Your task to perform on an android device: Go to internet settings Image 0: 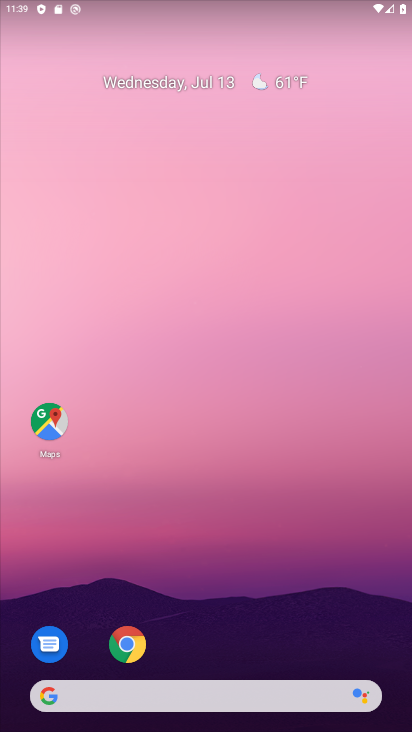
Step 0: drag from (258, 609) to (291, 109)
Your task to perform on an android device: Go to internet settings Image 1: 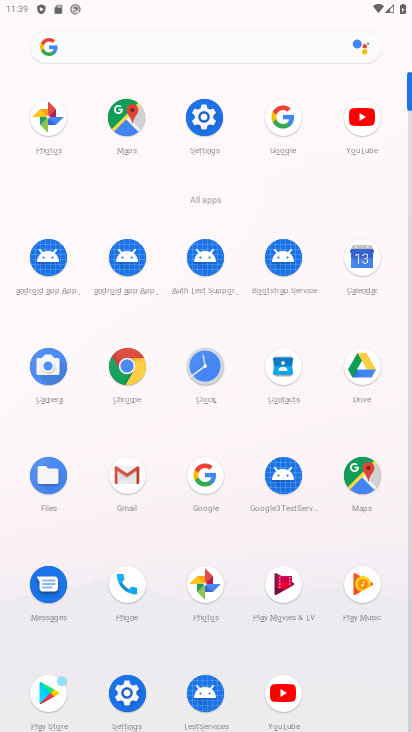
Step 1: click (121, 688)
Your task to perform on an android device: Go to internet settings Image 2: 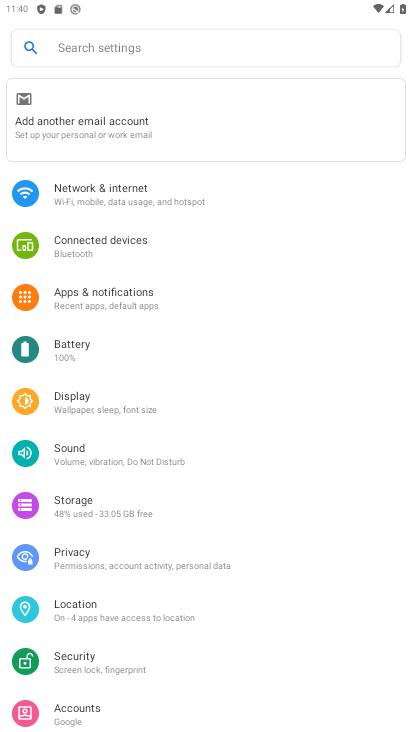
Step 2: click (211, 193)
Your task to perform on an android device: Go to internet settings Image 3: 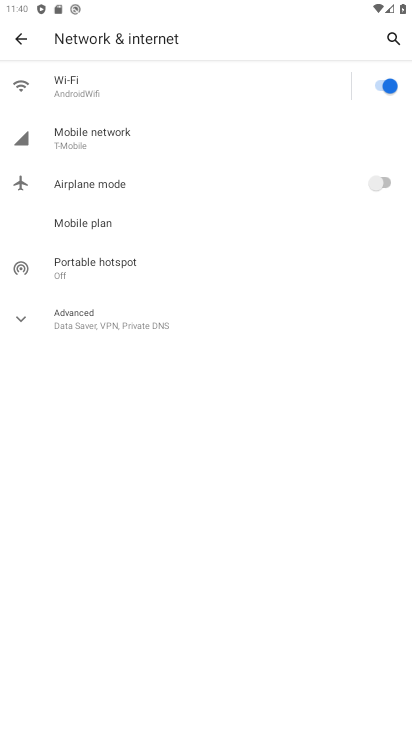
Step 3: click (97, 86)
Your task to perform on an android device: Go to internet settings Image 4: 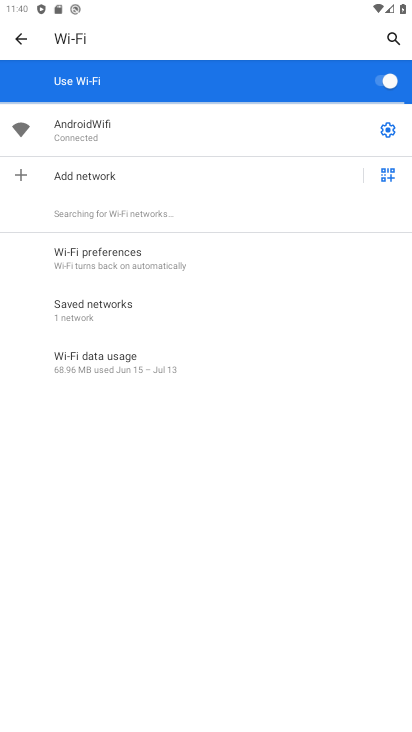
Step 4: click (310, 140)
Your task to perform on an android device: Go to internet settings Image 5: 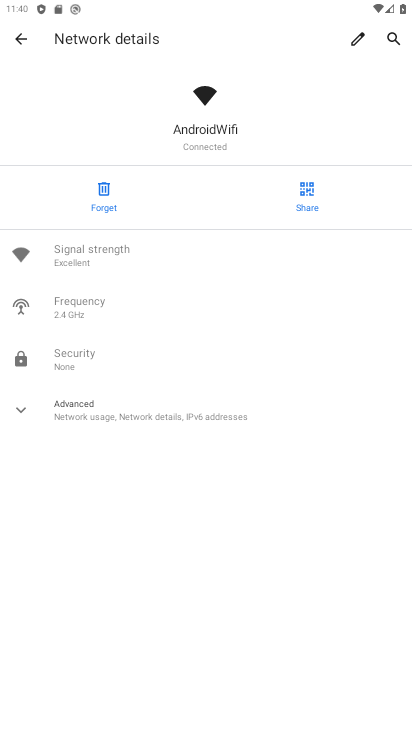
Step 5: task complete